Your task to perform on an android device: turn notification dots off Image 0: 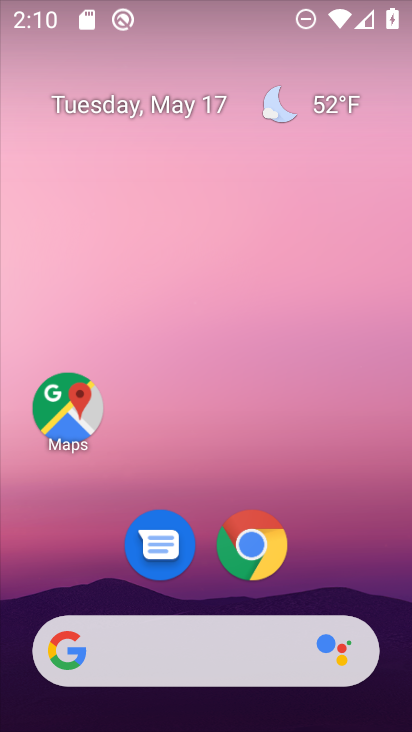
Step 0: drag from (351, 544) to (358, 245)
Your task to perform on an android device: turn notification dots off Image 1: 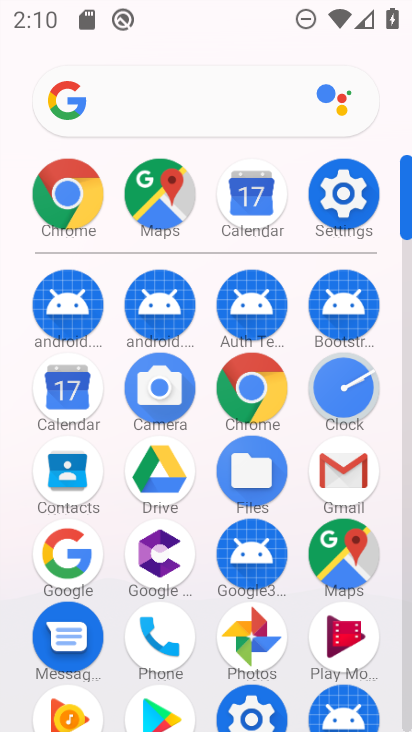
Step 1: click (357, 211)
Your task to perform on an android device: turn notification dots off Image 2: 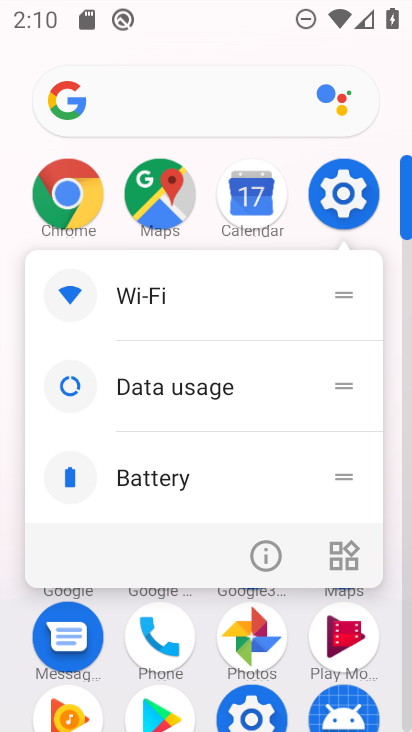
Step 2: click (349, 185)
Your task to perform on an android device: turn notification dots off Image 3: 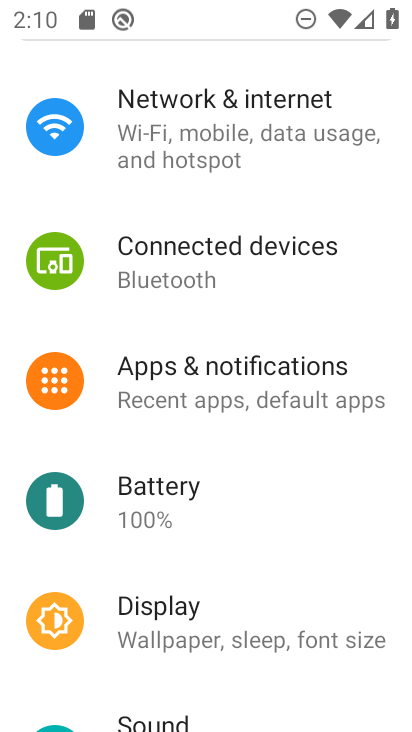
Step 3: drag from (382, 576) to (400, 467)
Your task to perform on an android device: turn notification dots off Image 4: 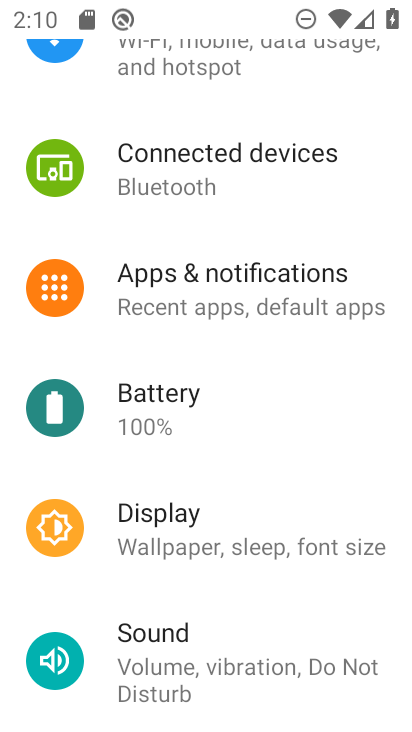
Step 4: drag from (346, 603) to (353, 482)
Your task to perform on an android device: turn notification dots off Image 5: 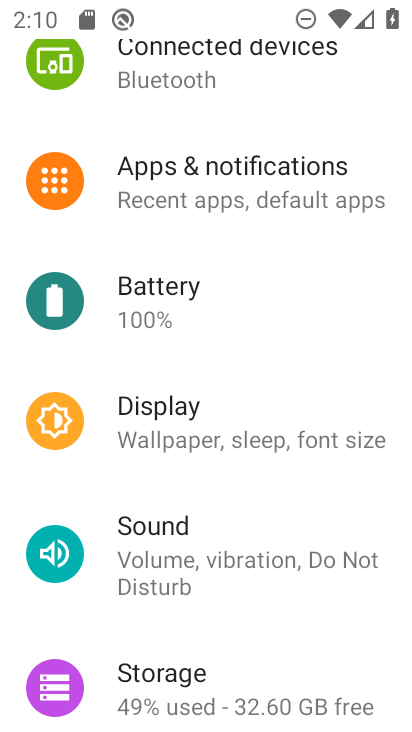
Step 5: drag from (360, 567) to (365, 521)
Your task to perform on an android device: turn notification dots off Image 6: 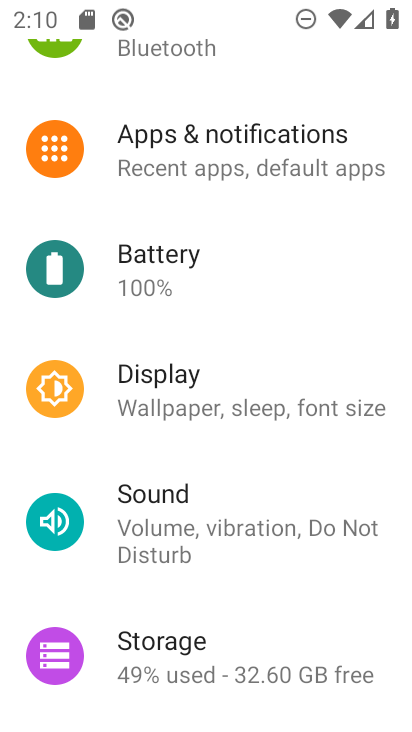
Step 6: drag from (347, 589) to (367, 482)
Your task to perform on an android device: turn notification dots off Image 7: 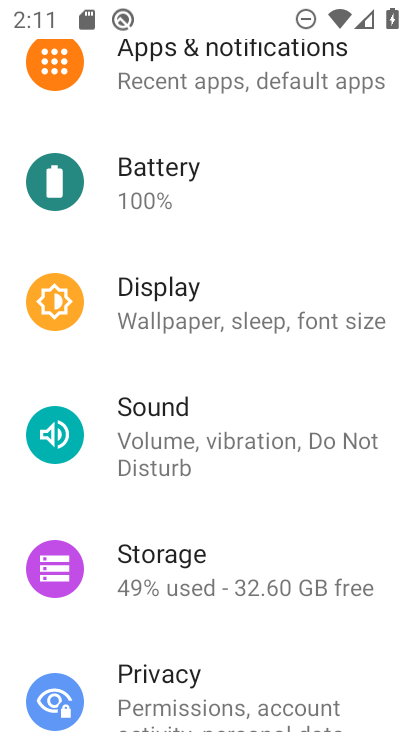
Step 7: drag from (355, 598) to (361, 543)
Your task to perform on an android device: turn notification dots off Image 8: 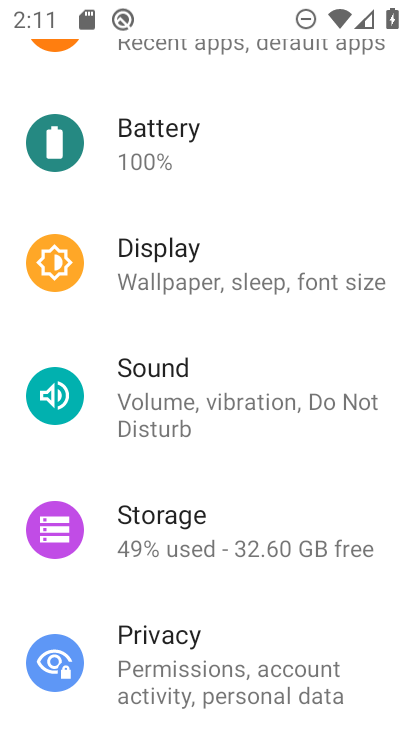
Step 8: drag from (356, 610) to (367, 501)
Your task to perform on an android device: turn notification dots off Image 9: 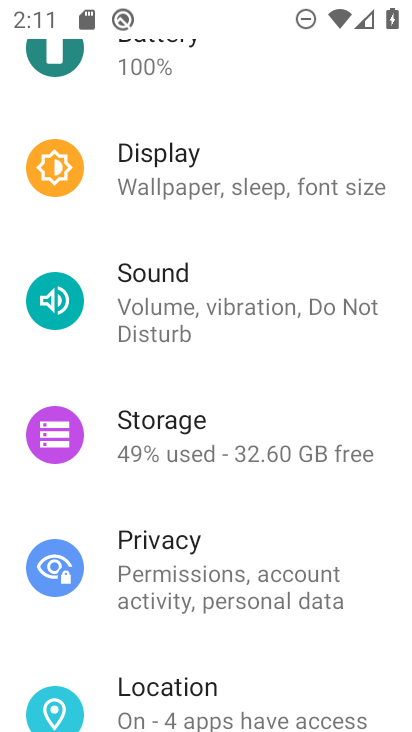
Step 9: drag from (384, 244) to (377, 508)
Your task to perform on an android device: turn notification dots off Image 10: 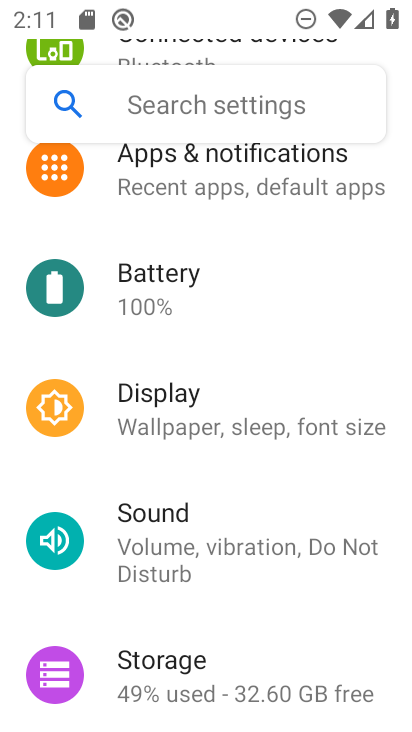
Step 10: drag from (365, 257) to (357, 430)
Your task to perform on an android device: turn notification dots off Image 11: 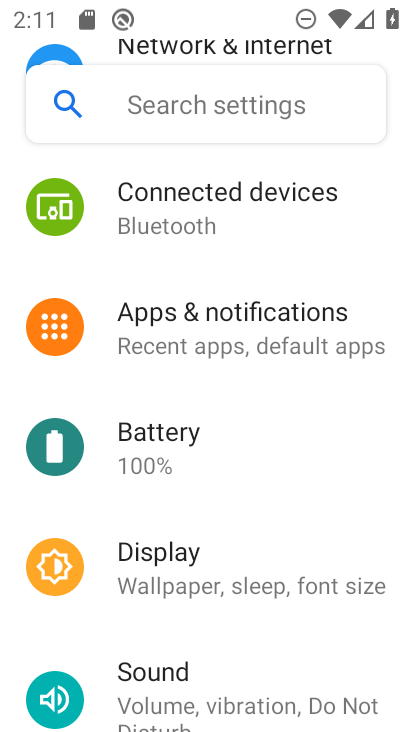
Step 11: click (332, 352)
Your task to perform on an android device: turn notification dots off Image 12: 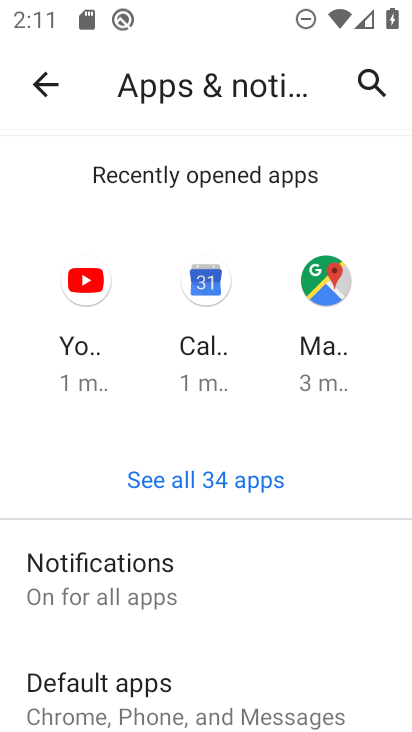
Step 12: drag from (338, 578) to (336, 458)
Your task to perform on an android device: turn notification dots off Image 13: 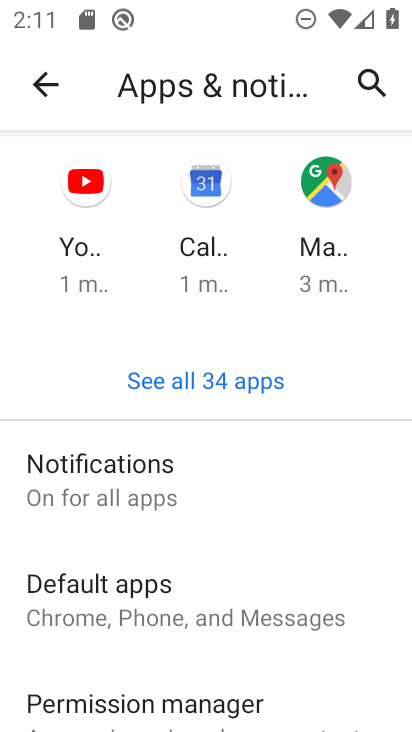
Step 13: click (163, 472)
Your task to perform on an android device: turn notification dots off Image 14: 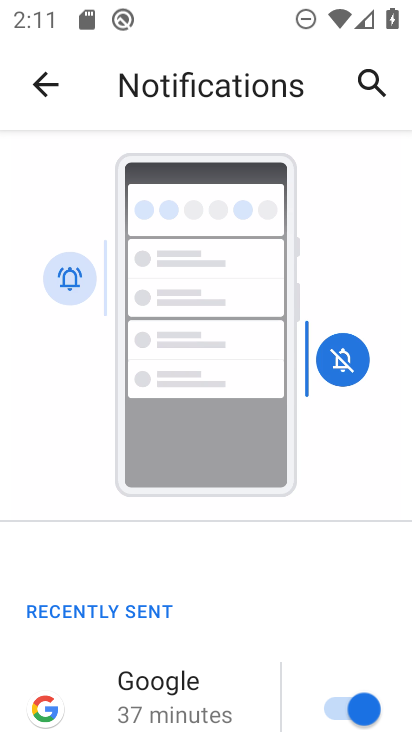
Step 14: drag from (270, 585) to (280, 473)
Your task to perform on an android device: turn notification dots off Image 15: 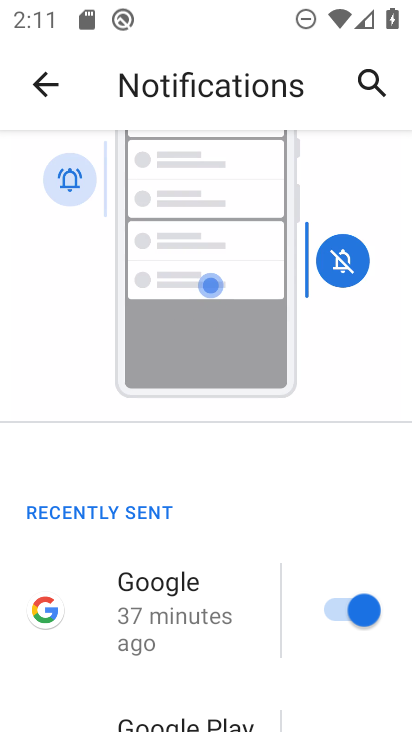
Step 15: drag from (275, 601) to (292, 555)
Your task to perform on an android device: turn notification dots off Image 16: 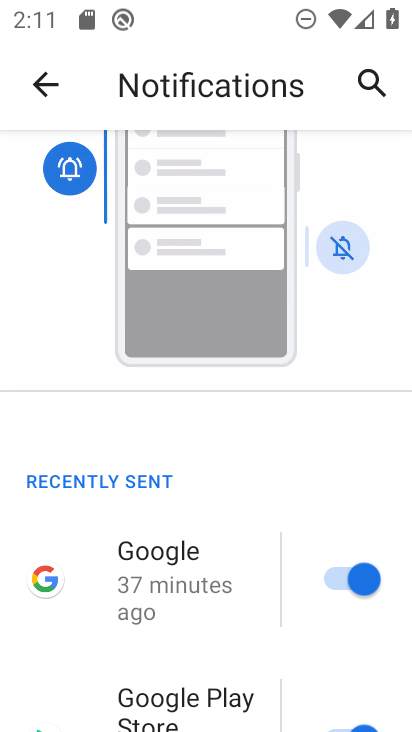
Step 16: drag from (303, 593) to (309, 559)
Your task to perform on an android device: turn notification dots off Image 17: 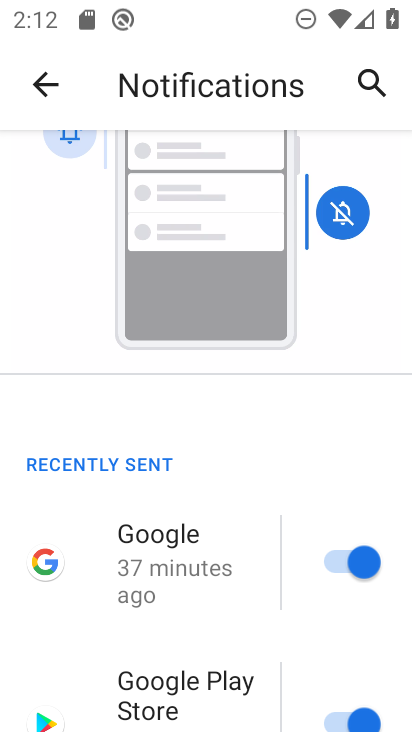
Step 17: drag from (281, 636) to (278, 500)
Your task to perform on an android device: turn notification dots off Image 18: 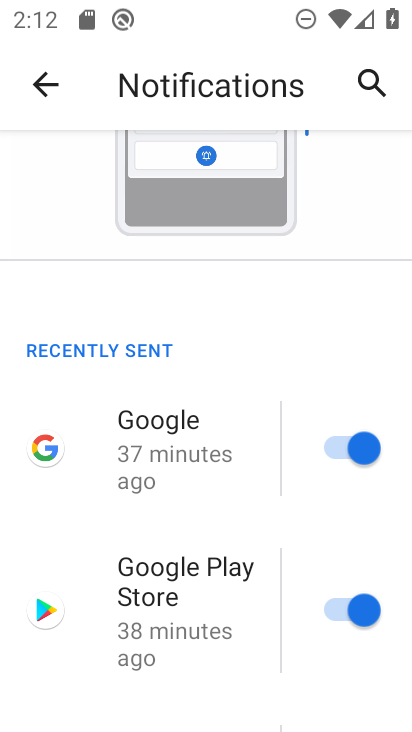
Step 18: drag from (251, 658) to (272, 476)
Your task to perform on an android device: turn notification dots off Image 19: 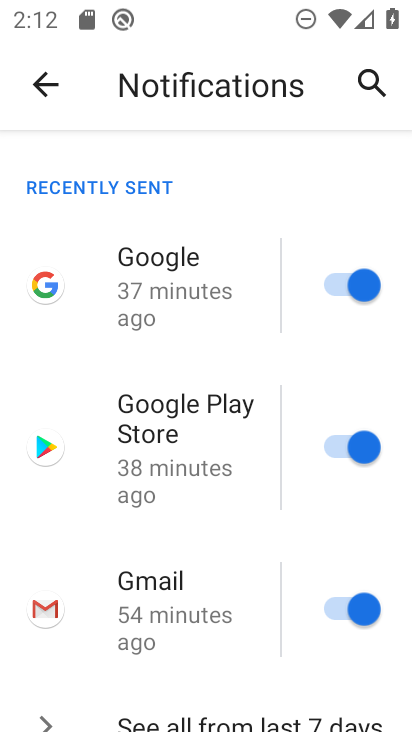
Step 19: drag from (247, 673) to (262, 528)
Your task to perform on an android device: turn notification dots off Image 20: 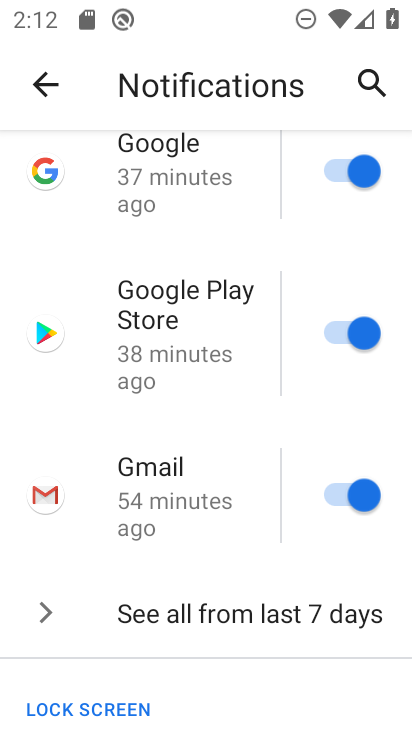
Step 20: drag from (239, 682) to (253, 587)
Your task to perform on an android device: turn notification dots off Image 21: 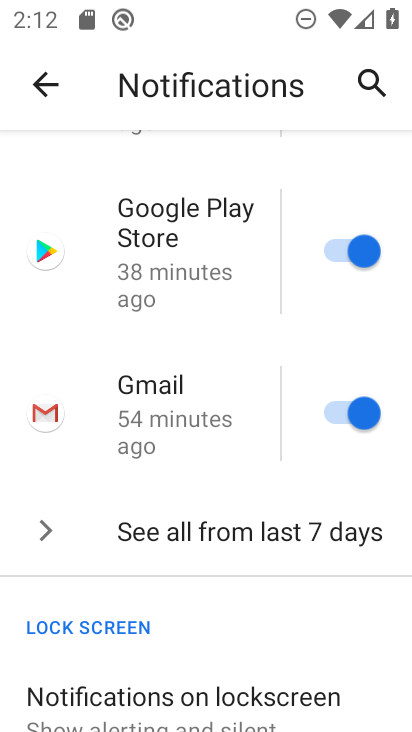
Step 21: drag from (242, 627) to (269, 524)
Your task to perform on an android device: turn notification dots off Image 22: 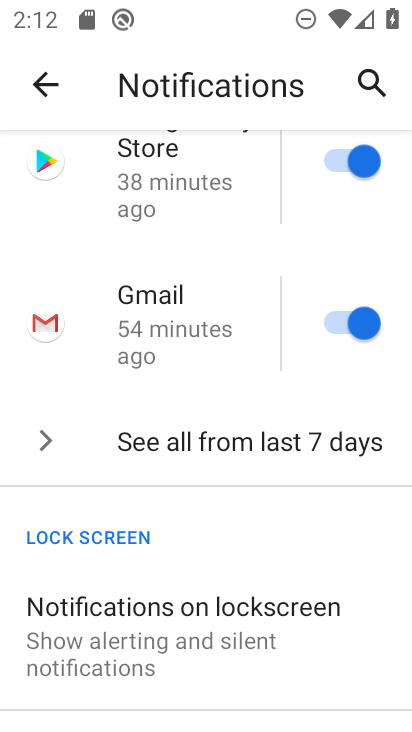
Step 22: drag from (281, 653) to (311, 554)
Your task to perform on an android device: turn notification dots off Image 23: 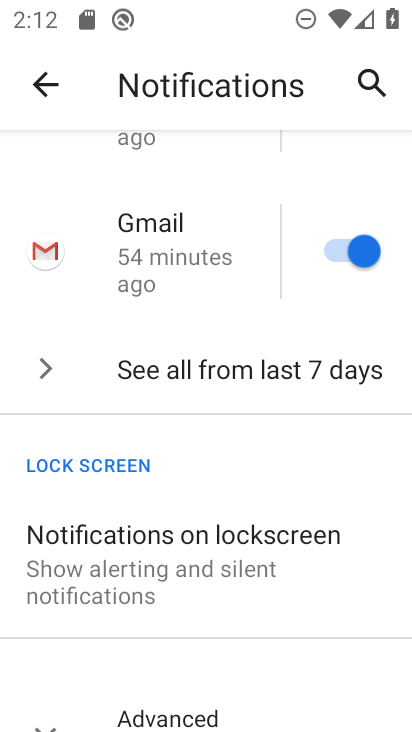
Step 23: drag from (329, 647) to (358, 517)
Your task to perform on an android device: turn notification dots off Image 24: 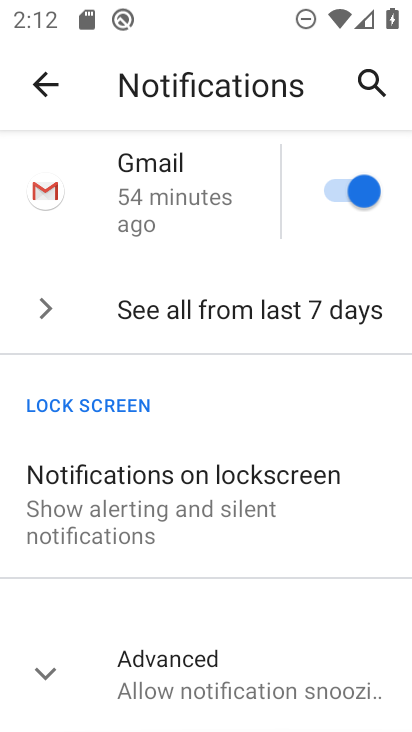
Step 24: click (283, 672)
Your task to perform on an android device: turn notification dots off Image 25: 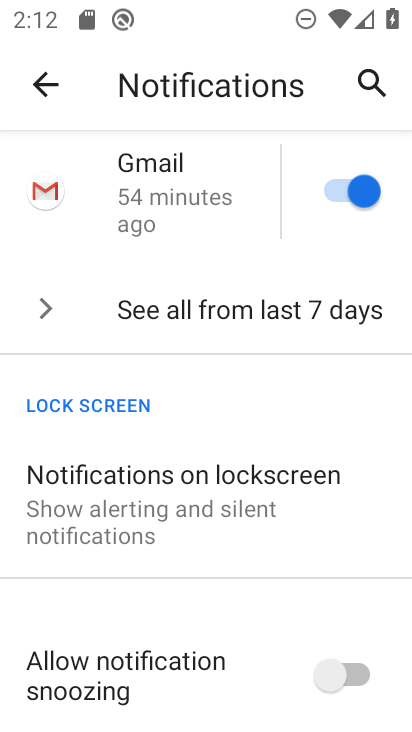
Step 25: drag from (253, 681) to (282, 569)
Your task to perform on an android device: turn notification dots off Image 26: 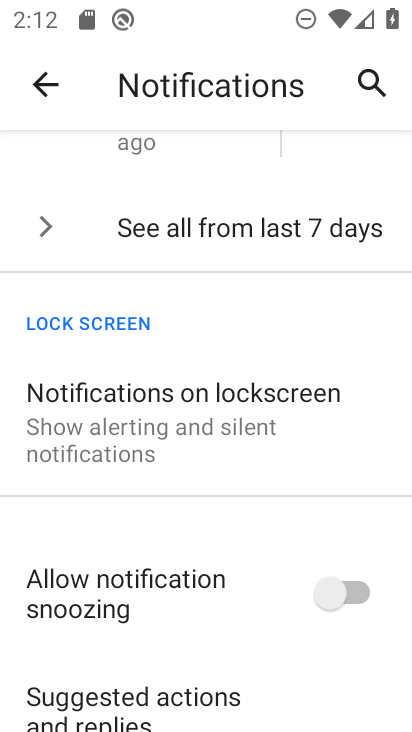
Step 26: drag from (270, 707) to (290, 615)
Your task to perform on an android device: turn notification dots off Image 27: 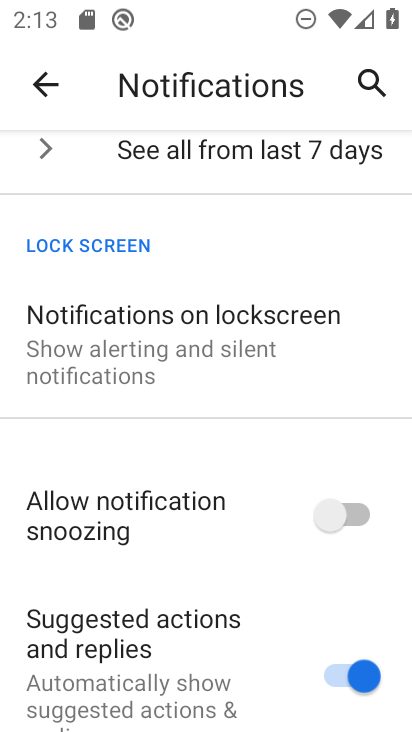
Step 27: drag from (302, 703) to (334, 621)
Your task to perform on an android device: turn notification dots off Image 28: 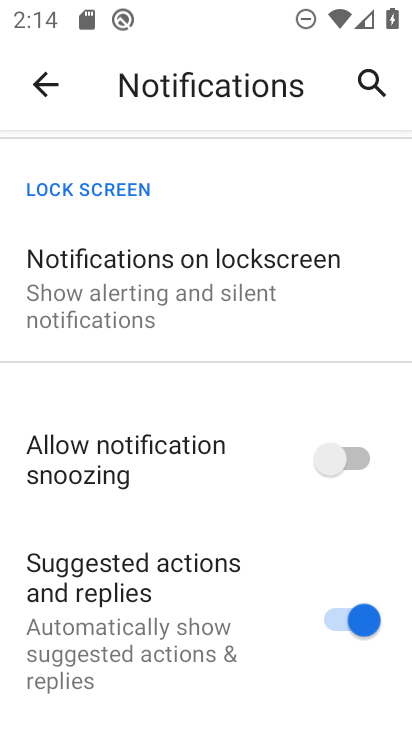
Step 28: drag from (289, 644) to (320, 384)
Your task to perform on an android device: turn notification dots off Image 29: 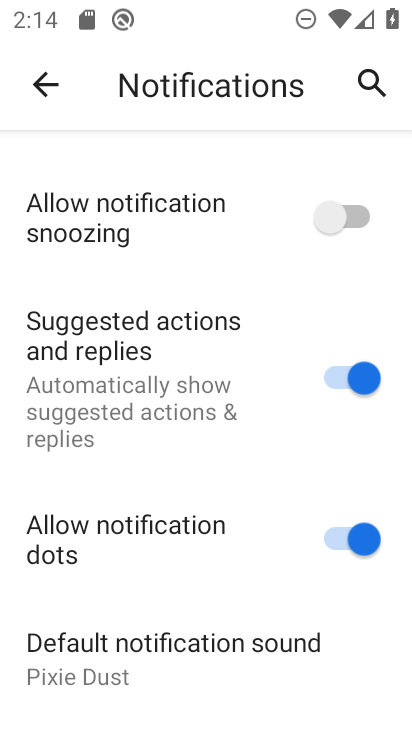
Step 29: drag from (263, 601) to (288, 466)
Your task to perform on an android device: turn notification dots off Image 30: 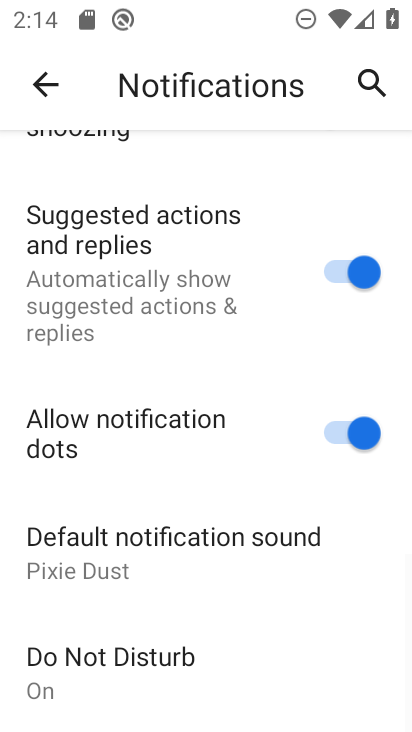
Step 30: drag from (243, 651) to (278, 487)
Your task to perform on an android device: turn notification dots off Image 31: 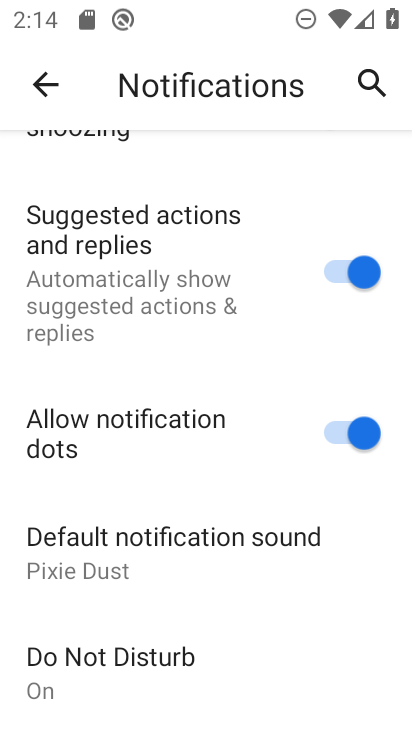
Step 31: click (371, 434)
Your task to perform on an android device: turn notification dots off Image 32: 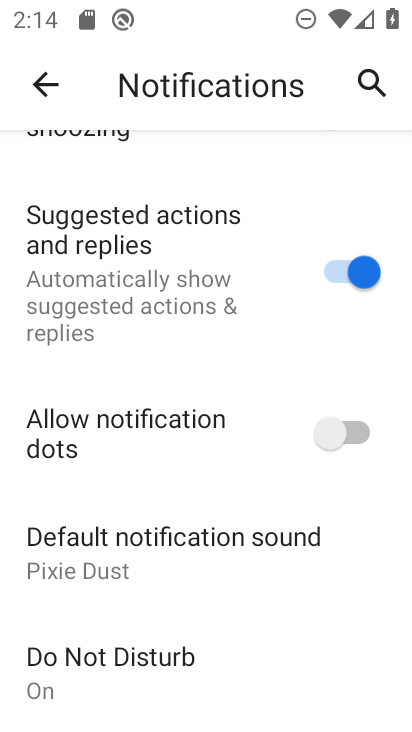
Step 32: task complete